Your task to perform on an android device: turn on translation in the chrome app Image 0: 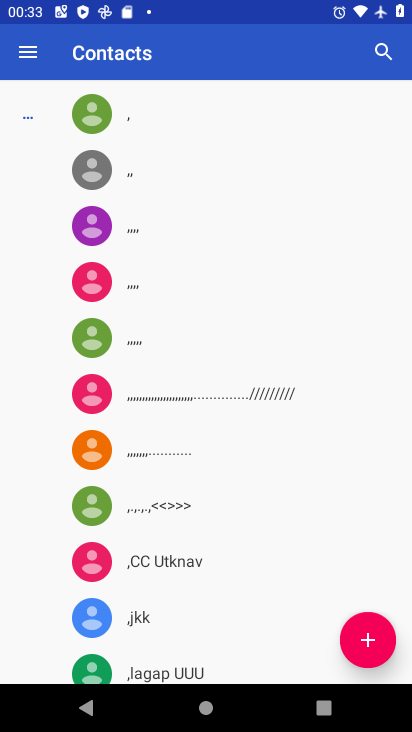
Step 0: press home button
Your task to perform on an android device: turn on translation in the chrome app Image 1: 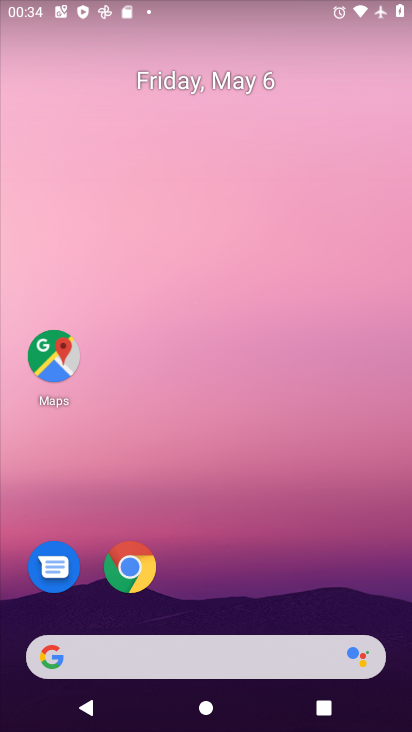
Step 1: click (139, 561)
Your task to perform on an android device: turn on translation in the chrome app Image 2: 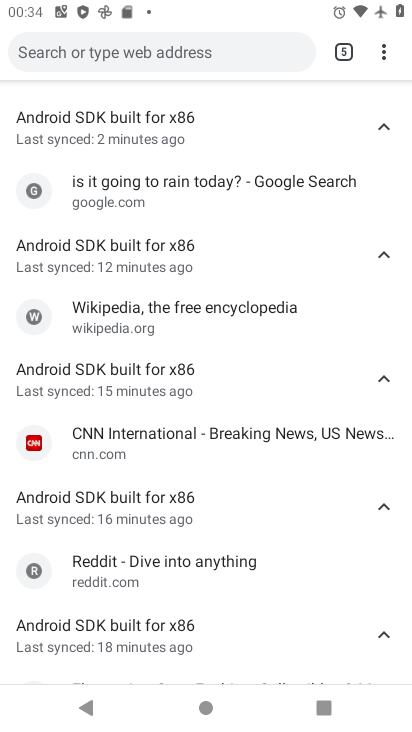
Step 2: click (379, 55)
Your task to perform on an android device: turn on translation in the chrome app Image 3: 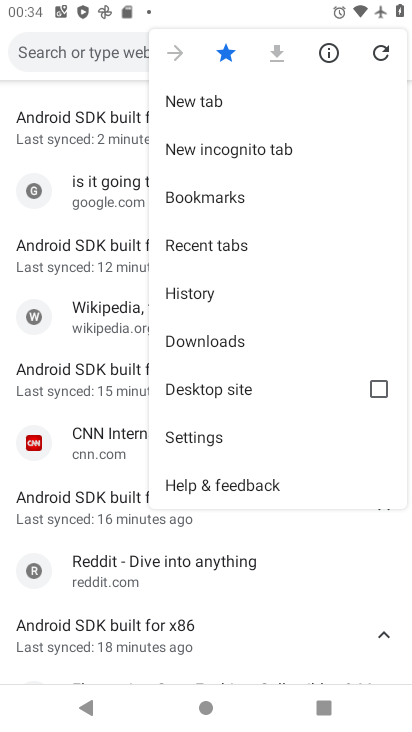
Step 3: click (223, 436)
Your task to perform on an android device: turn on translation in the chrome app Image 4: 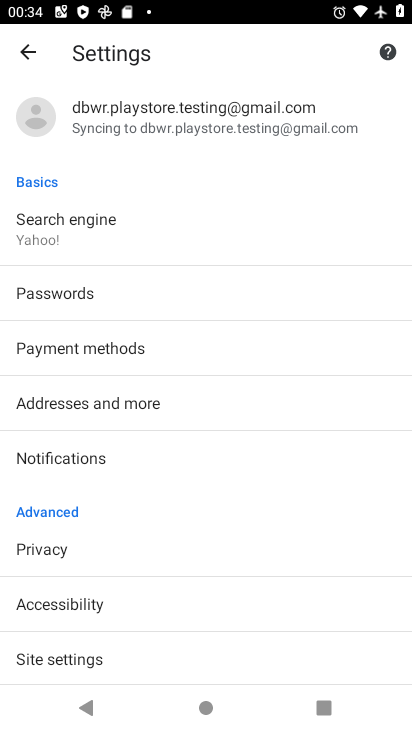
Step 4: drag from (233, 586) to (259, 355)
Your task to perform on an android device: turn on translation in the chrome app Image 5: 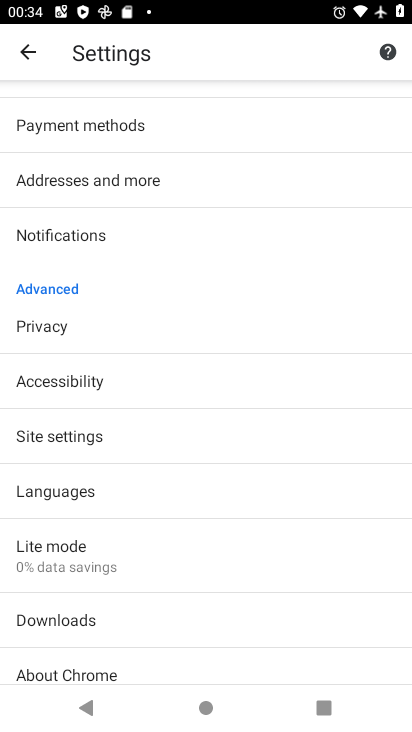
Step 5: click (133, 492)
Your task to perform on an android device: turn on translation in the chrome app Image 6: 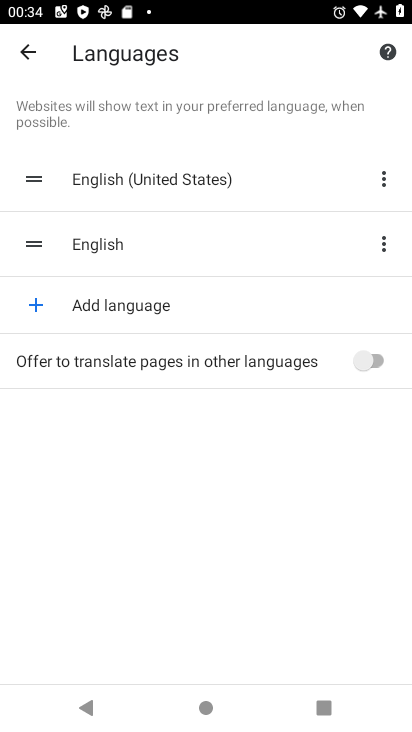
Step 6: click (379, 352)
Your task to perform on an android device: turn on translation in the chrome app Image 7: 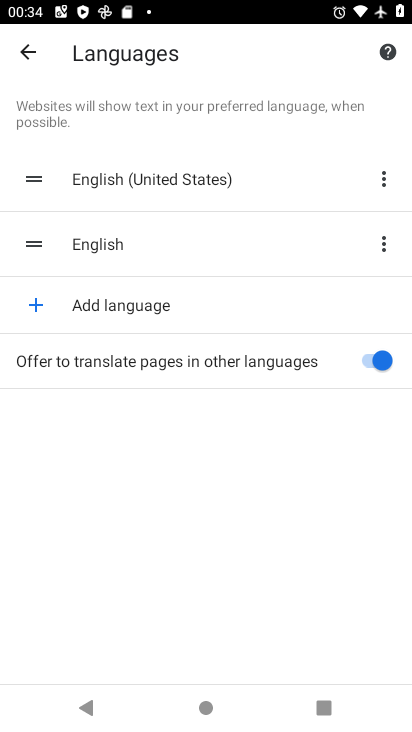
Step 7: task complete